Your task to perform on an android device: add a contact Image 0: 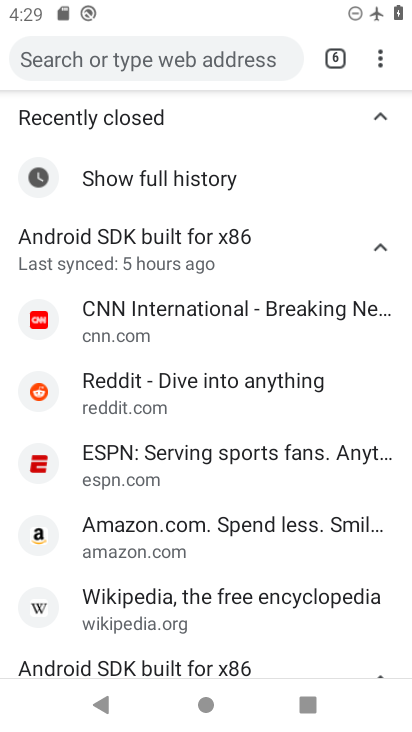
Step 0: press home button
Your task to perform on an android device: add a contact Image 1: 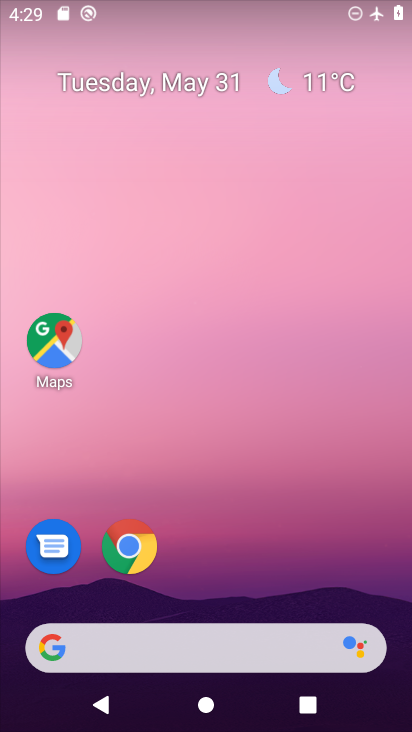
Step 1: drag from (280, 527) to (193, 11)
Your task to perform on an android device: add a contact Image 2: 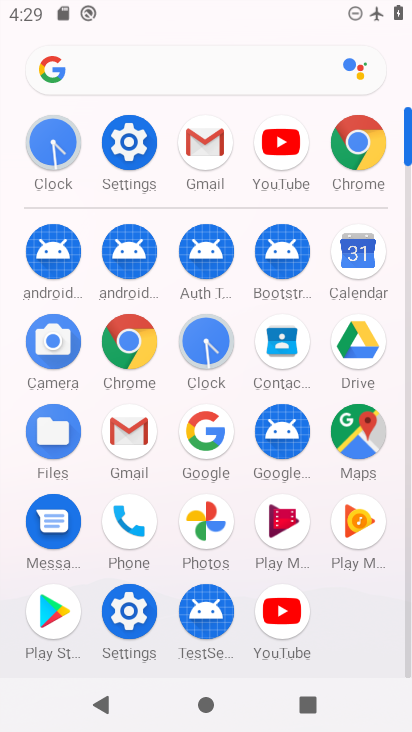
Step 2: click (281, 337)
Your task to perform on an android device: add a contact Image 3: 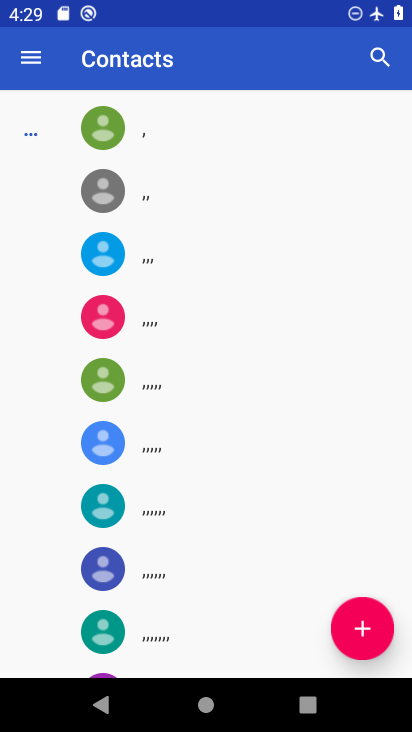
Step 3: click (371, 631)
Your task to perform on an android device: add a contact Image 4: 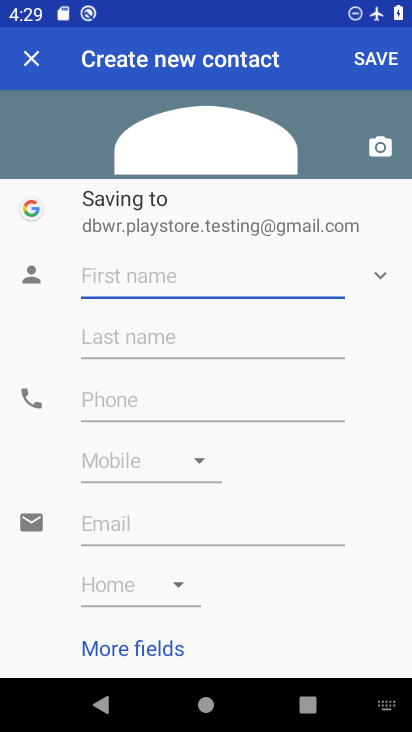
Step 4: type "gfdfgd"
Your task to perform on an android device: add a contact Image 5: 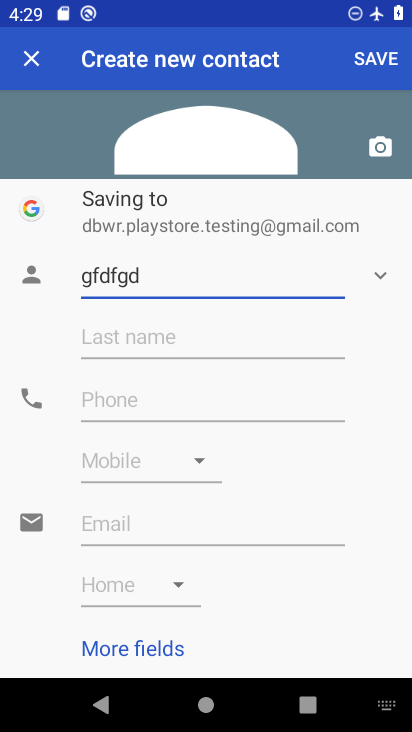
Step 5: click (218, 359)
Your task to perform on an android device: add a contact Image 6: 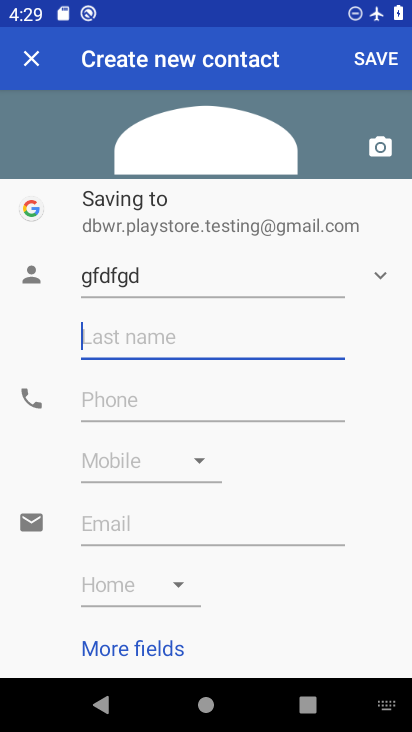
Step 6: click (213, 347)
Your task to perform on an android device: add a contact Image 7: 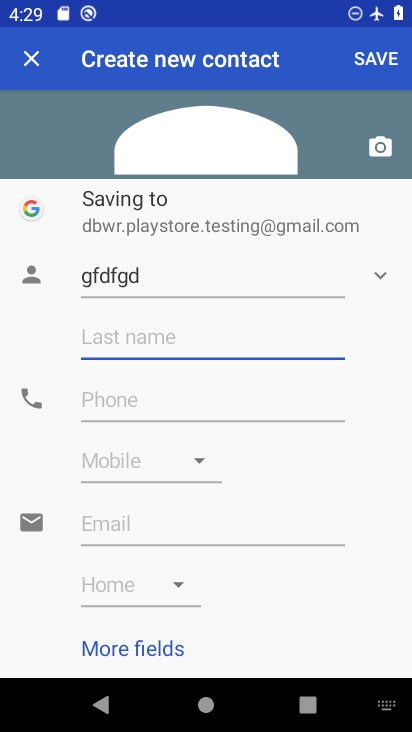
Step 7: type "fsdf"
Your task to perform on an android device: add a contact Image 8: 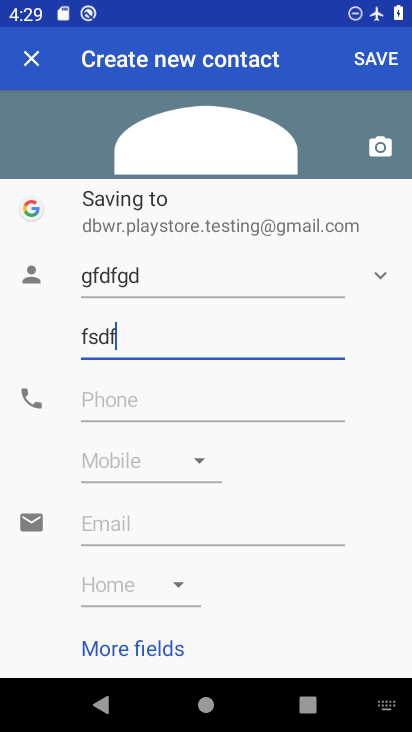
Step 8: type ""
Your task to perform on an android device: add a contact Image 9: 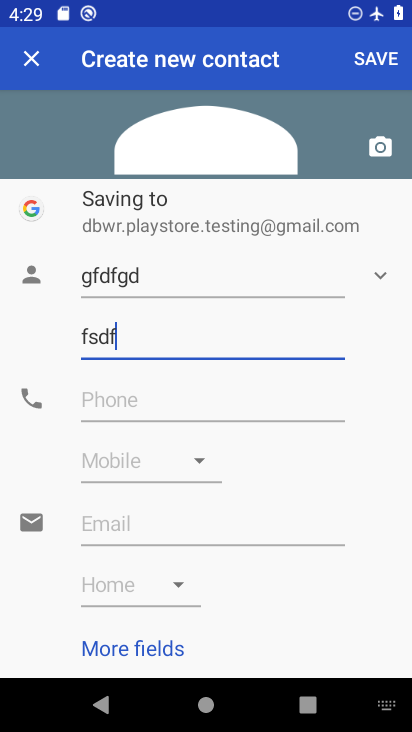
Step 9: click (318, 404)
Your task to perform on an android device: add a contact Image 10: 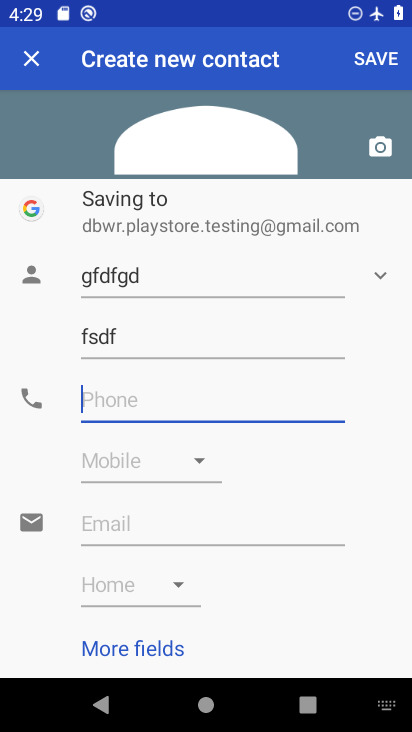
Step 10: type "4354563454"
Your task to perform on an android device: add a contact Image 11: 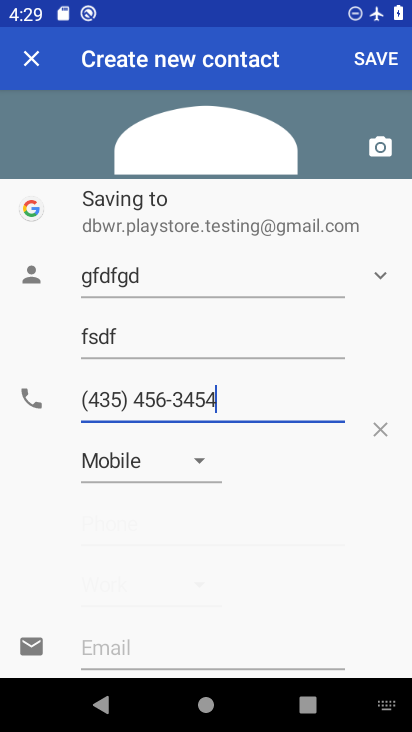
Step 11: type ""
Your task to perform on an android device: add a contact Image 12: 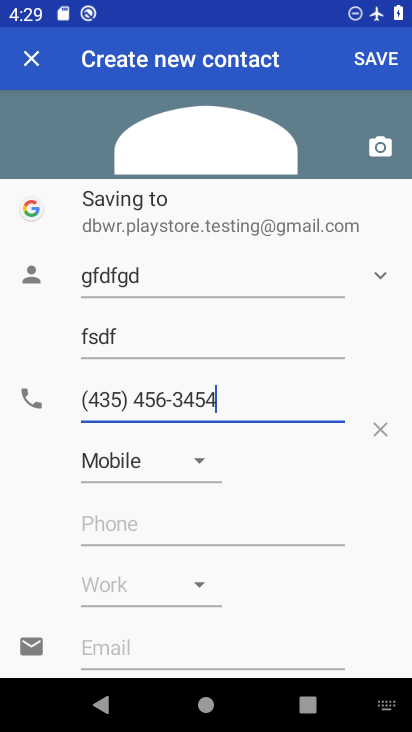
Step 12: click (374, 45)
Your task to perform on an android device: add a contact Image 13: 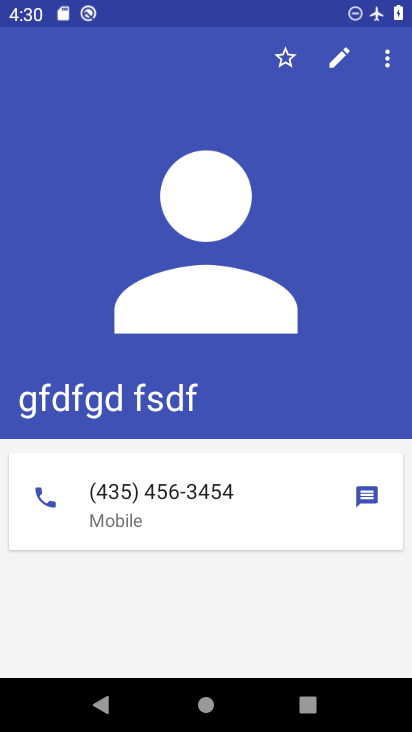
Step 13: task complete